Your task to perform on an android device: Open calendar and show me the first week of next month Image 0: 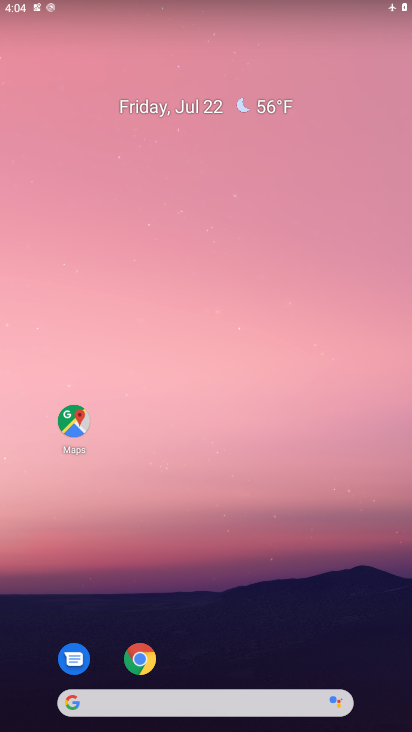
Step 0: drag from (157, 658) to (226, 122)
Your task to perform on an android device: Open calendar and show me the first week of next month Image 1: 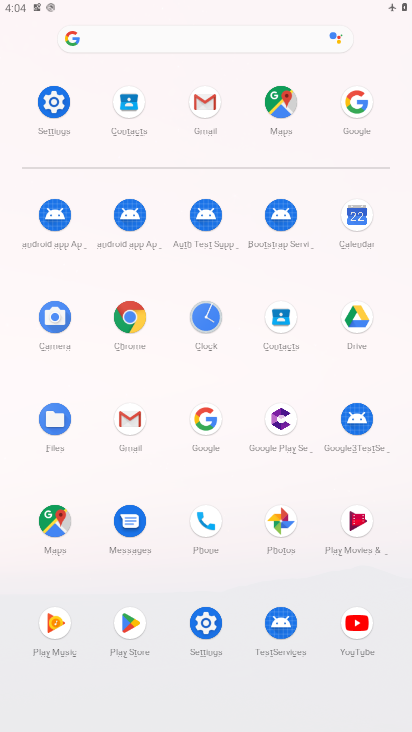
Step 1: click (351, 220)
Your task to perform on an android device: Open calendar and show me the first week of next month Image 2: 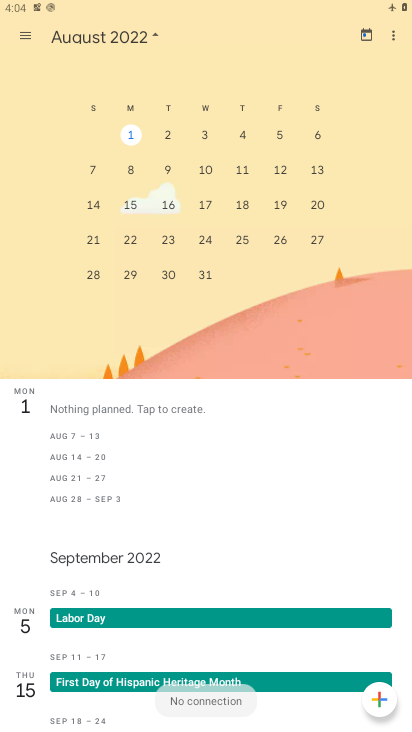
Step 2: drag from (380, 301) to (7, 282)
Your task to perform on an android device: Open calendar and show me the first week of next month Image 3: 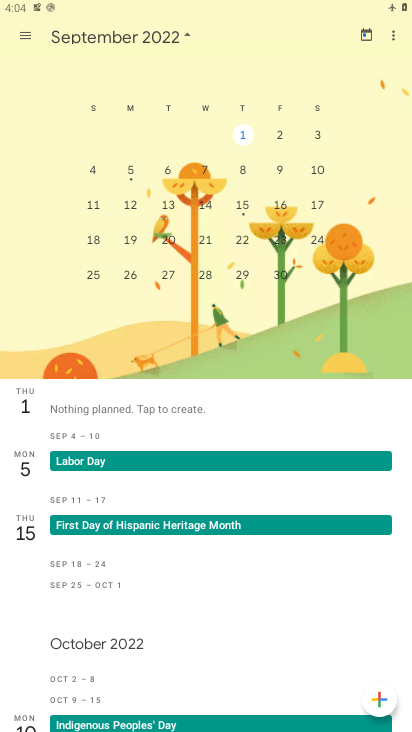
Step 3: drag from (30, 203) to (367, 307)
Your task to perform on an android device: Open calendar and show me the first week of next month Image 4: 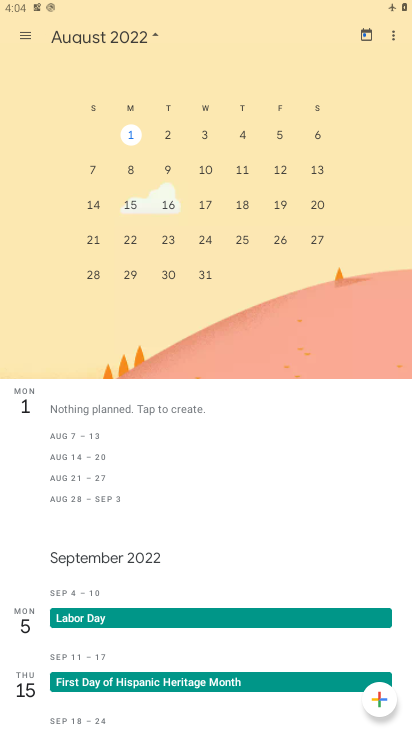
Step 4: click (131, 132)
Your task to perform on an android device: Open calendar and show me the first week of next month Image 5: 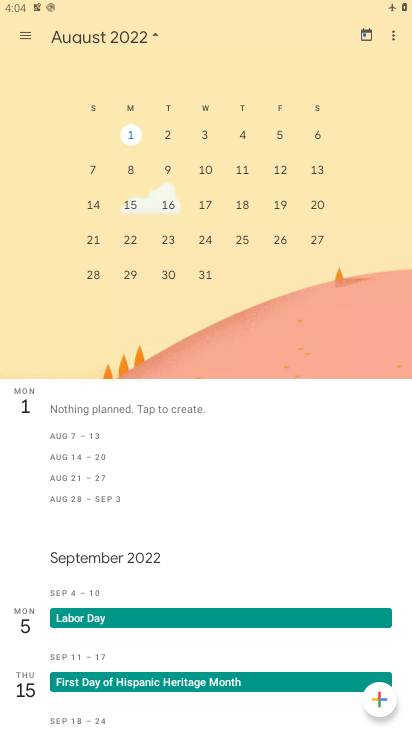
Step 5: task complete